Your task to perform on an android device: Open Google Chrome Image 0: 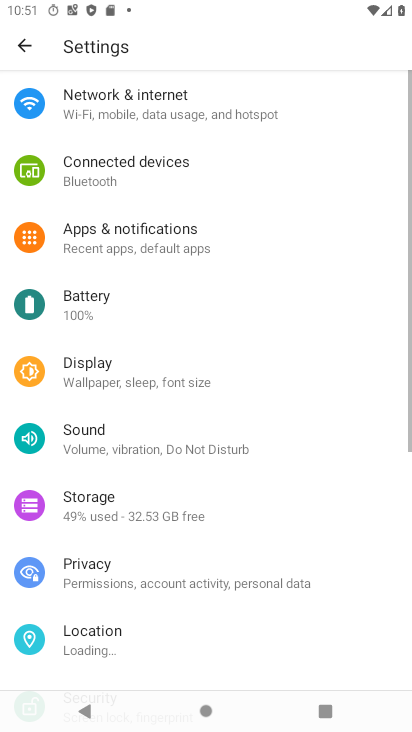
Step 0: press home button
Your task to perform on an android device: Open Google Chrome Image 1: 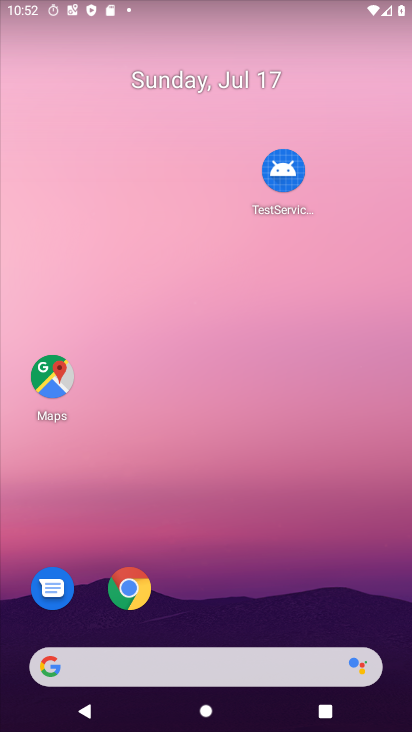
Step 1: drag from (266, 555) to (276, 50)
Your task to perform on an android device: Open Google Chrome Image 2: 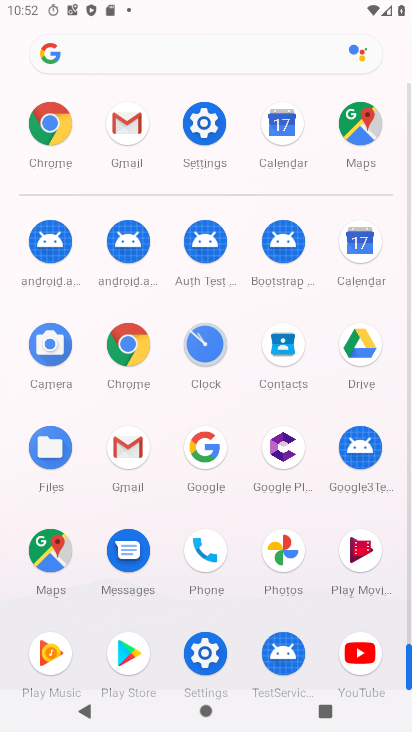
Step 2: click (47, 147)
Your task to perform on an android device: Open Google Chrome Image 3: 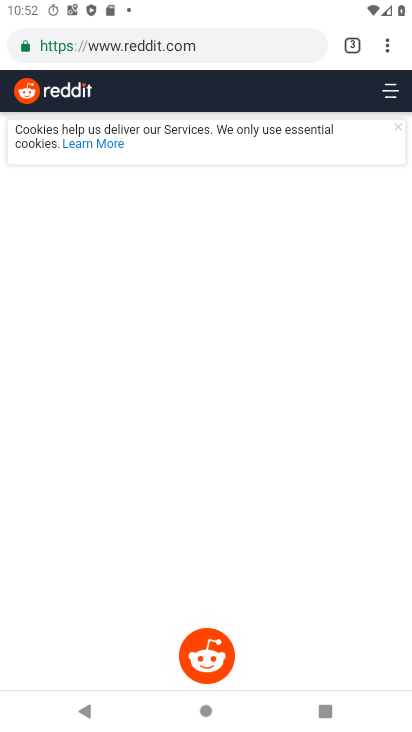
Step 3: task complete